Your task to perform on an android device: delete the emails in spam in the gmail app Image 0: 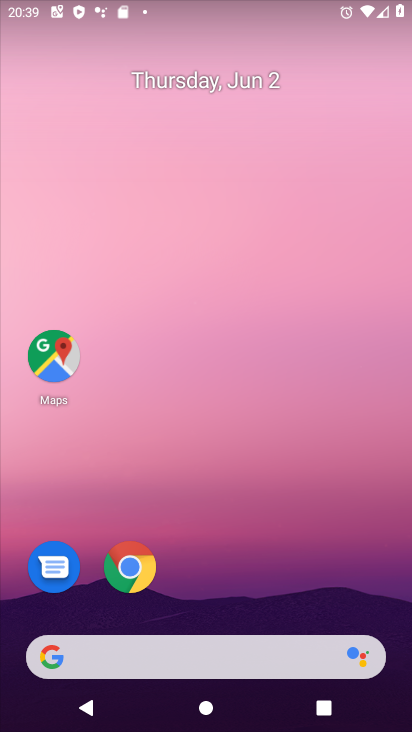
Step 0: drag from (237, 580) to (189, 51)
Your task to perform on an android device: delete the emails in spam in the gmail app Image 1: 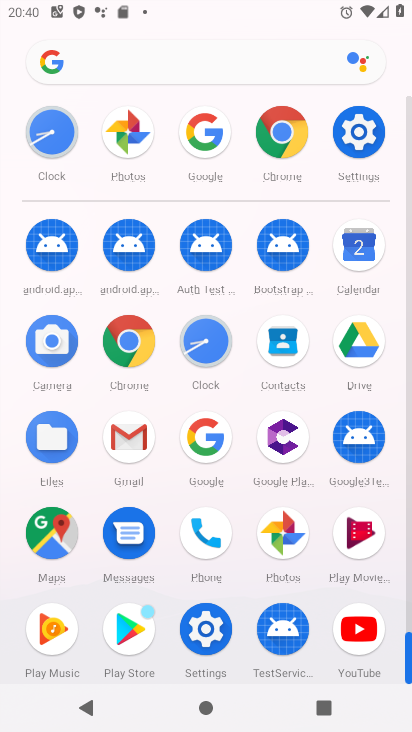
Step 1: click (129, 438)
Your task to perform on an android device: delete the emails in spam in the gmail app Image 2: 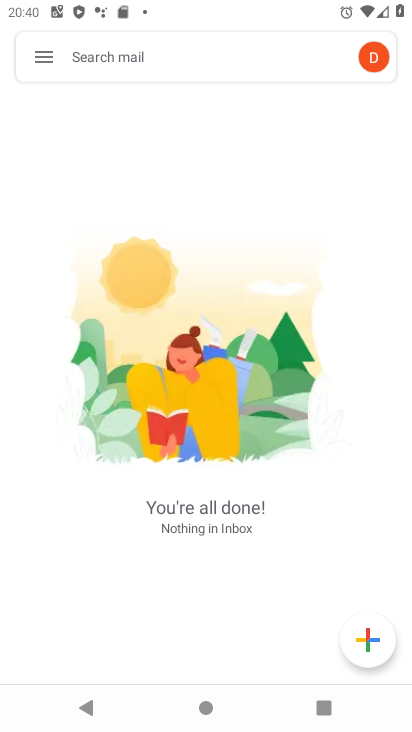
Step 2: click (43, 56)
Your task to perform on an android device: delete the emails in spam in the gmail app Image 3: 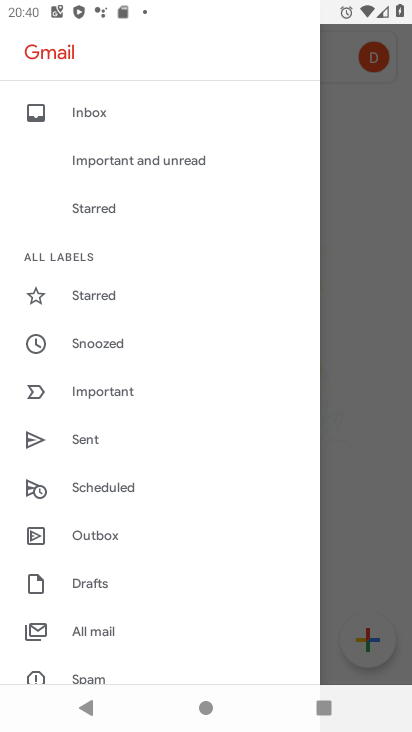
Step 3: drag from (91, 425) to (105, 362)
Your task to perform on an android device: delete the emails in spam in the gmail app Image 4: 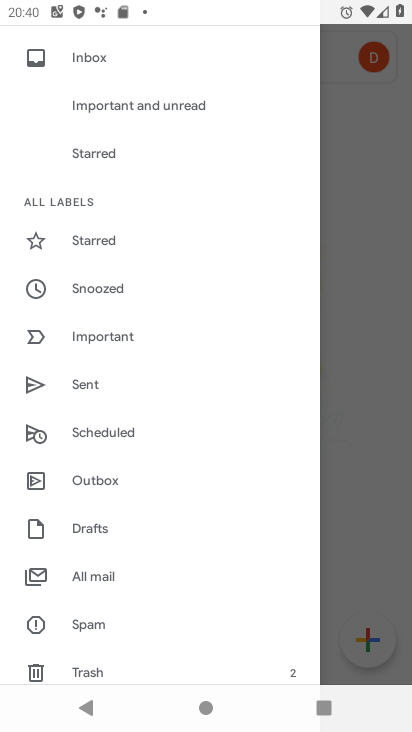
Step 4: drag from (94, 501) to (189, 390)
Your task to perform on an android device: delete the emails in spam in the gmail app Image 5: 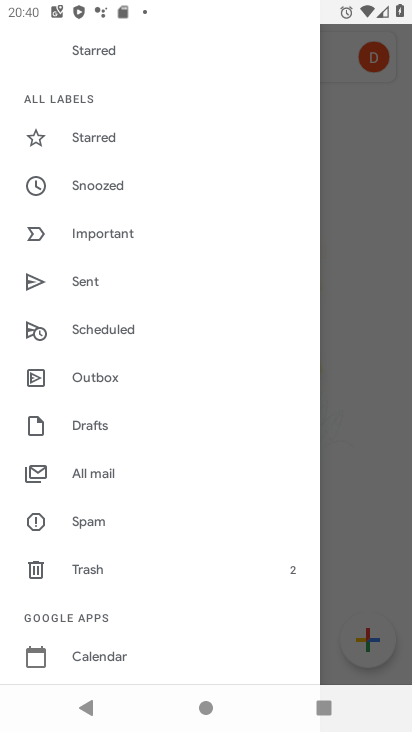
Step 5: click (87, 520)
Your task to perform on an android device: delete the emails in spam in the gmail app Image 6: 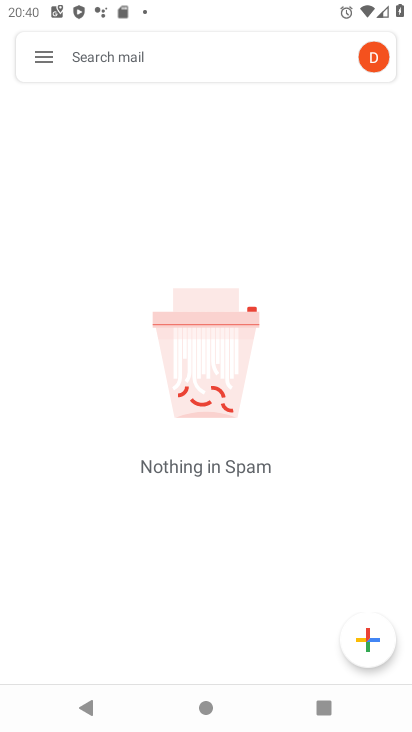
Step 6: task complete